Your task to perform on an android device: What is the news today? Image 0: 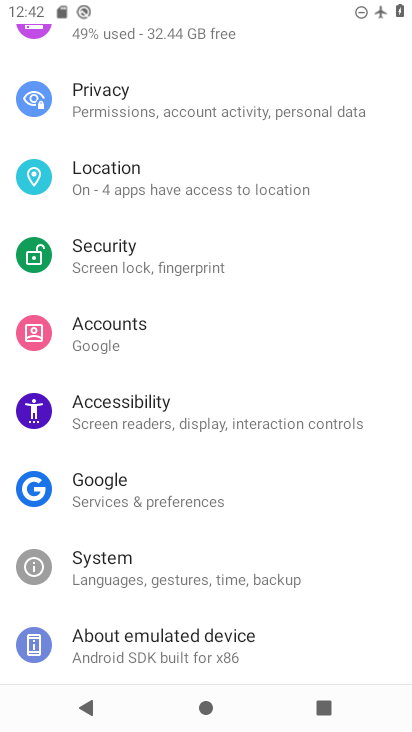
Step 0: press home button
Your task to perform on an android device: What is the news today? Image 1: 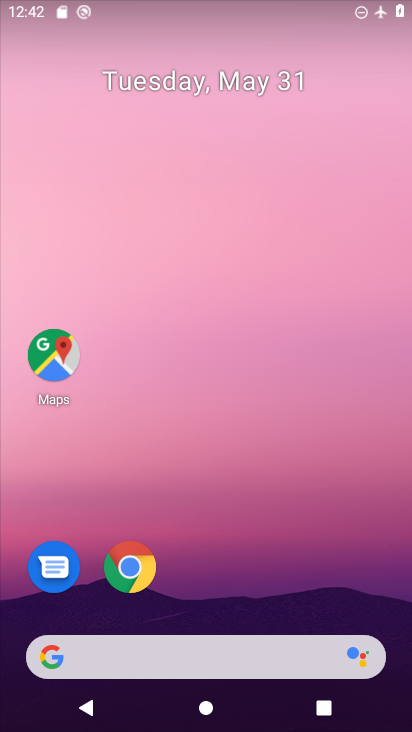
Step 1: drag from (203, 577) to (218, 240)
Your task to perform on an android device: What is the news today? Image 2: 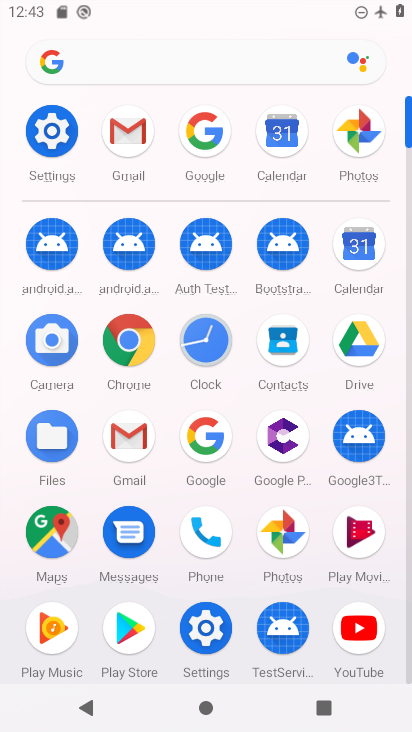
Step 2: click (185, 160)
Your task to perform on an android device: What is the news today? Image 3: 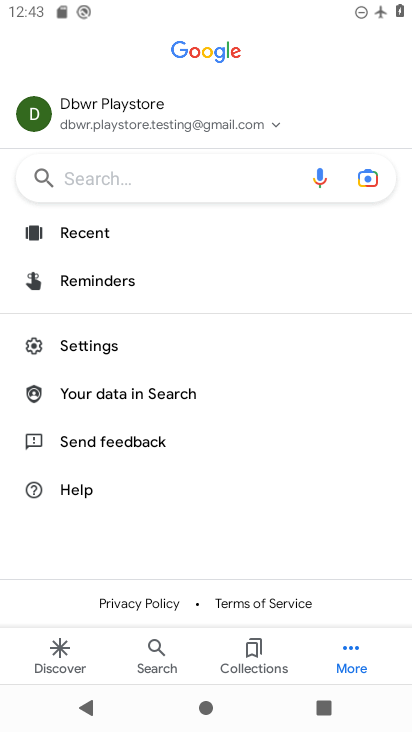
Step 3: click (68, 662)
Your task to perform on an android device: What is the news today? Image 4: 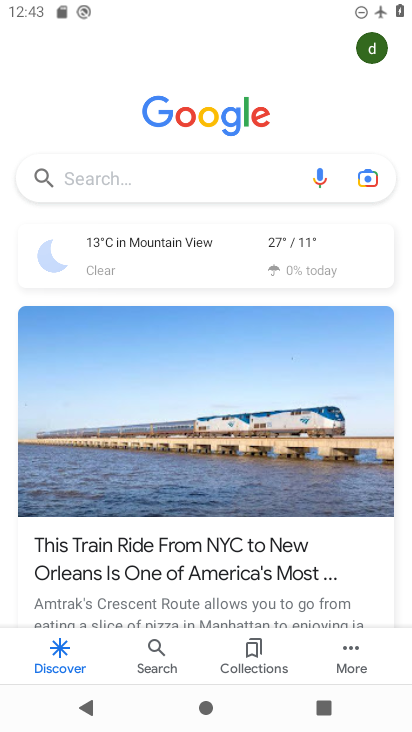
Step 4: click (152, 185)
Your task to perform on an android device: What is the news today? Image 5: 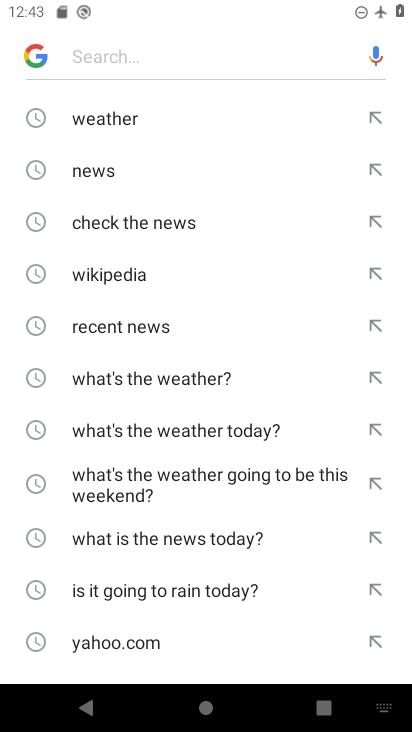
Step 5: click (122, 164)
Your task to perform on an android device: What is the news today? Image 6: 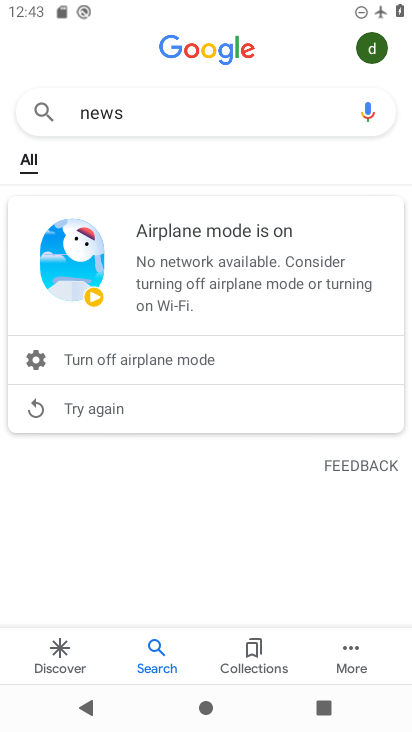
Step 6: task complete